Your task to perform on an android device: See recent photos Image 0: 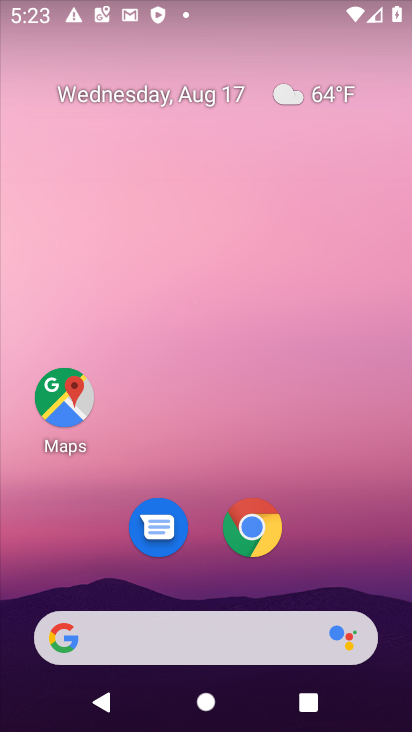
Step 0: drag from (129, 608) to (129, 231)
Your task to perform on an android device: See recent photos Image 1: 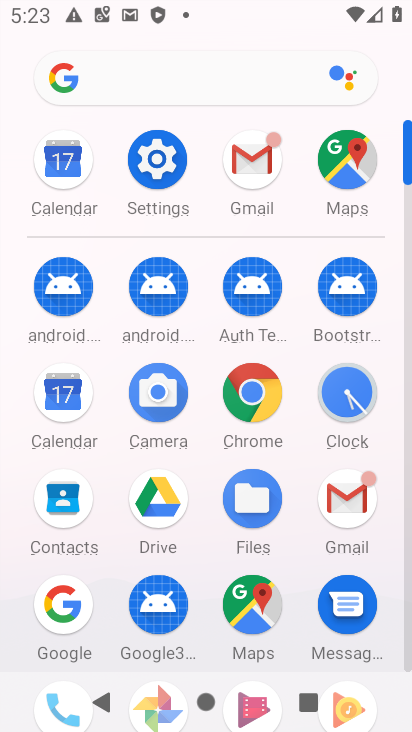
Step 1: drag from (208, 631) to (208, 309)
Your task to perform on an android device: See recent photos Image 2: 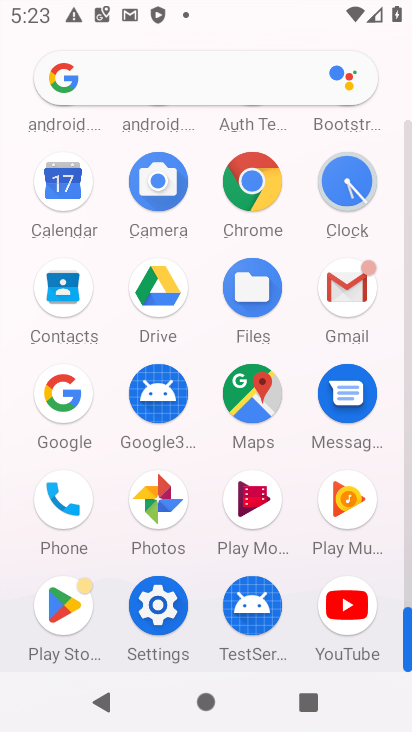
Step 2: click (148, 511)
Your task to perform on an android device: See recent photos Image 3: 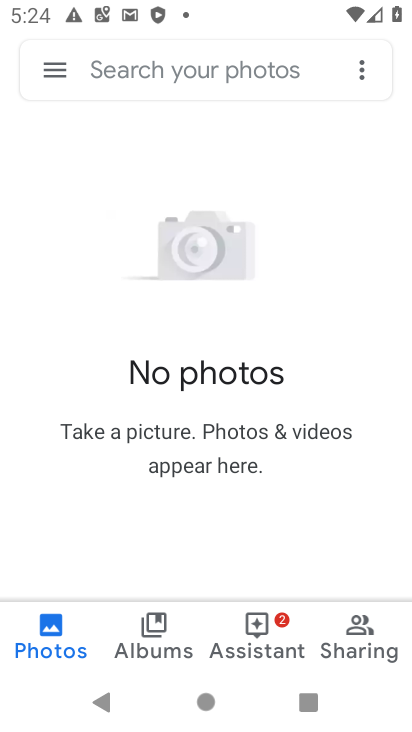
Step 3: task complete